Your task to perform on an android device: find snoozed emails in the gmail app Image 0: 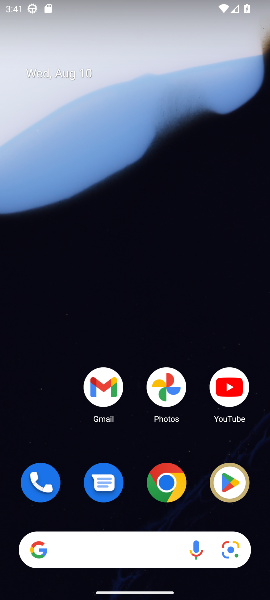
Step 0: drag from (147, 507) to (113, 91)
Your task to perform on an android device: find snoozed emails in the gmail app Image 1: 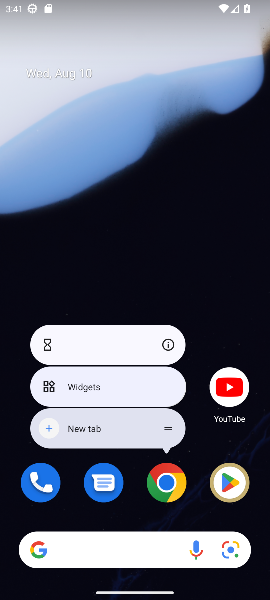
Step 1: click (131, 502)
Your task to perform on an android device: find snoozed emails in the gmail app Image 2: 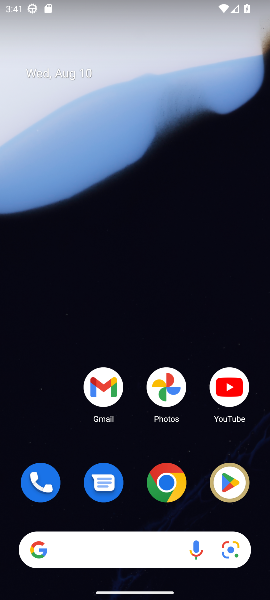
Step 2: drag from (131, 511) to (102, 78)
Your task to perform on an android device: find snoozed emails in the gmail app Image 3: 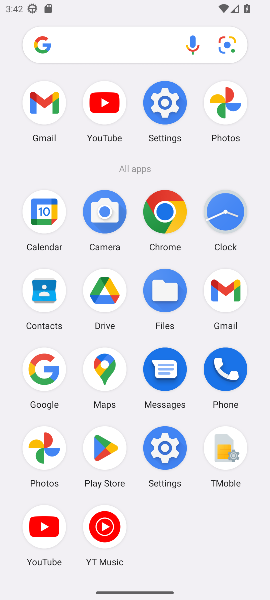
Step 3: click (220, 278)
Your task to perform on an android device: find snoozed emails in the gmail app Image 4: 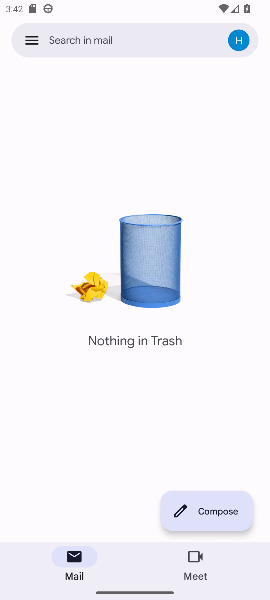
Step 4: click (39, 40)
Your task to perform on an android device: find snoozed emails in the gmail app Image 5: 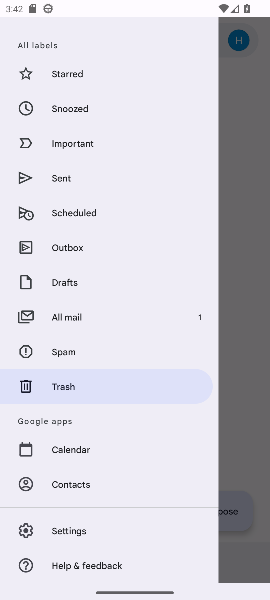
Step 5: click (82, 107)
Your task to perform on an android device: find snoozed emails in the gmail app Image 6: 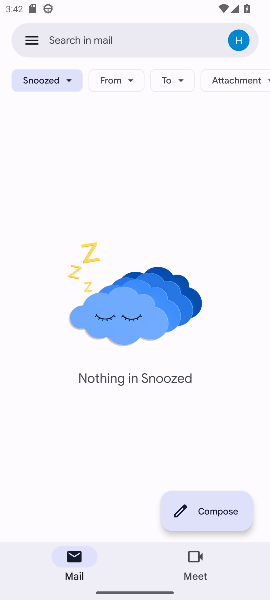
Step 6: task complete